Your task to perform on an android device: set an alarm Image 0: 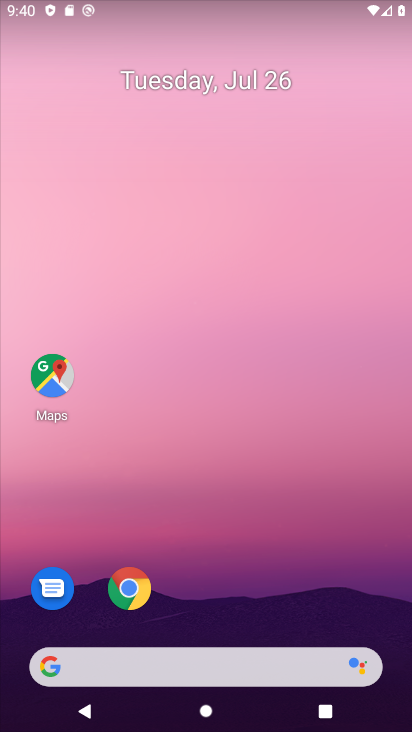
Step 0: drag from (261, 605) to (287, 52)
Your task to perform on an android device: set an alarm Image 1: 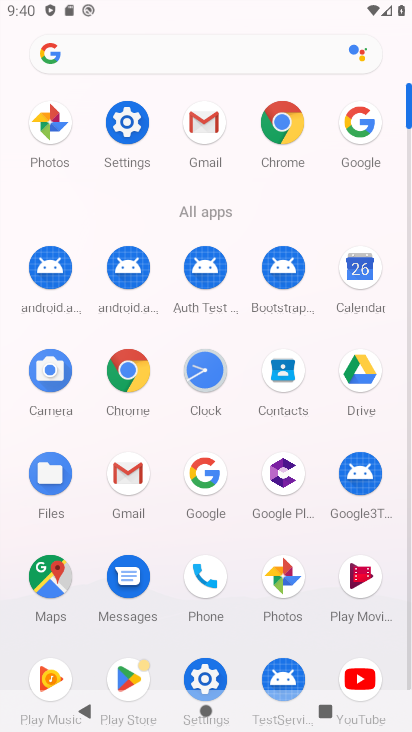
Step 1: click (212, 376)
Your task to perform on an android device: set an alarm Image 2: 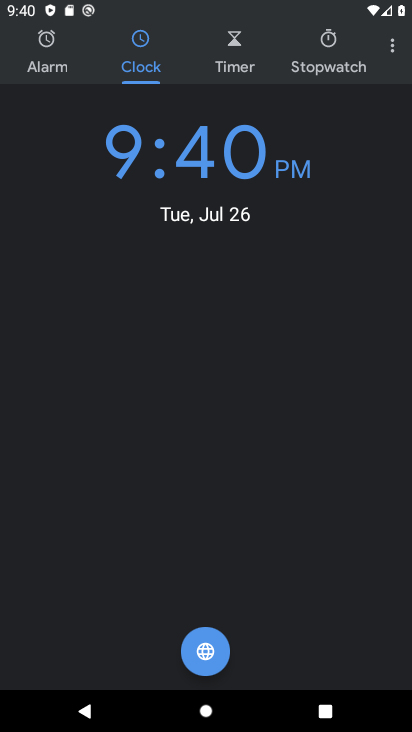
Step 2: click (53, 36)
Your task to perform on an android device: set an alarm Image 3: 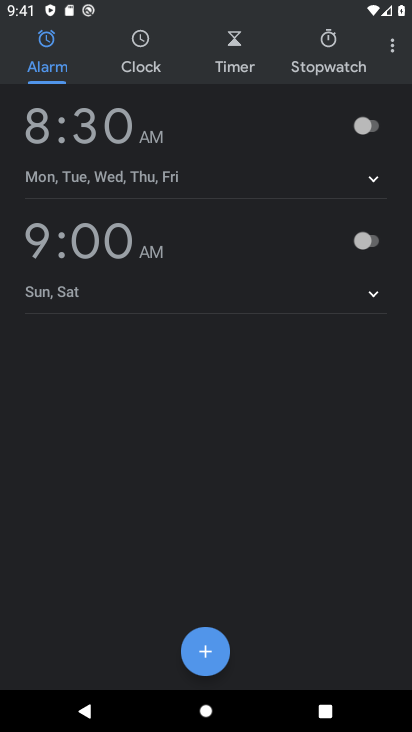
Step 3: click (366, 123)
Your task to perform on an android device: set an alarm Image 4: 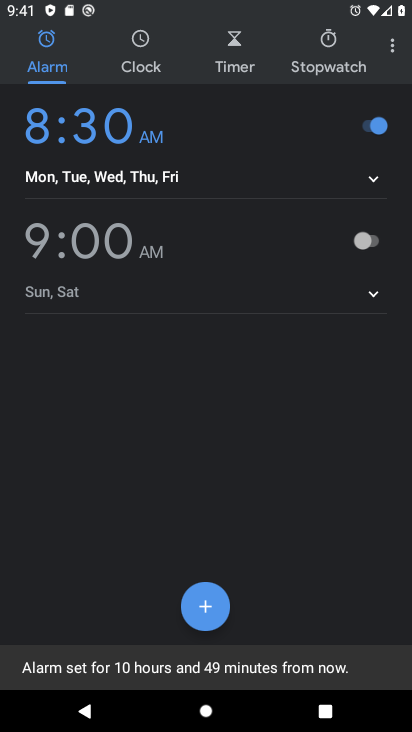
Step 4: task complete